Your task to perform on an android device: turn on data saver in the chrome app Image 0: 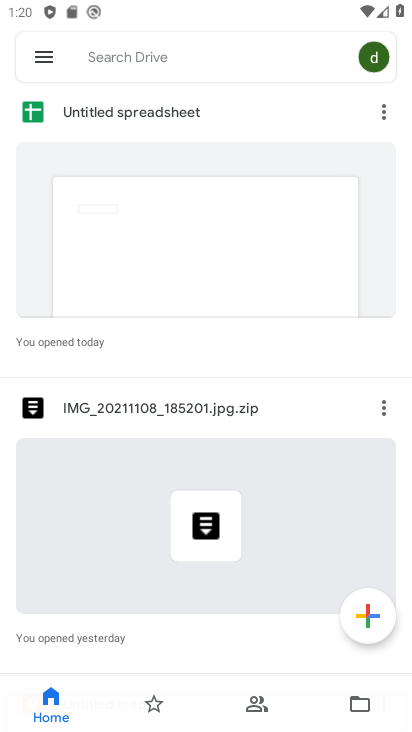
Step 0: press home button
Your task to perform on an android device: turn on data saver in the chrome app Image 1: 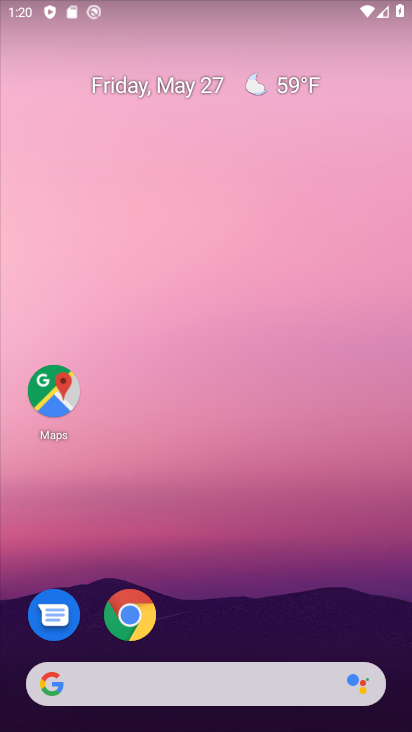
Step 1: click (140, 619)
Your task to perform on an android device: turn on data saver in the chrome app Image 2: 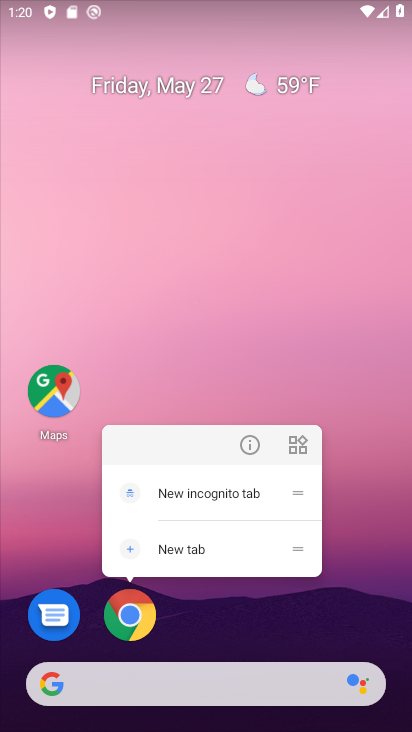
Step 2: click (126, 629)
Your task to perform on an android device: turn on data saver in the chrome app Image 3: 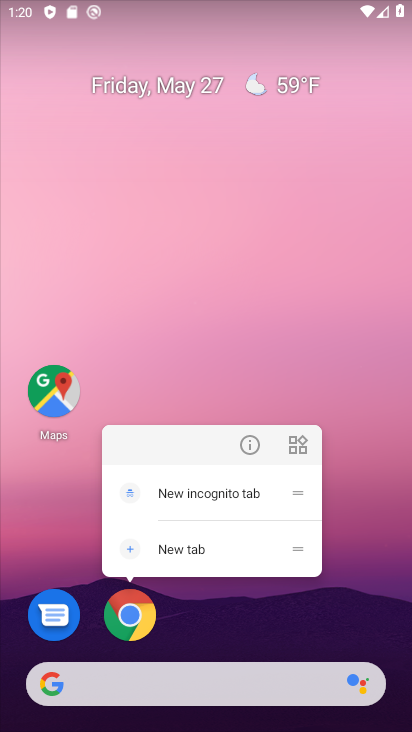
Step 3: click (128, 616)
Your task to perform on an android device: turn on data saver in the chrome app Image 4: 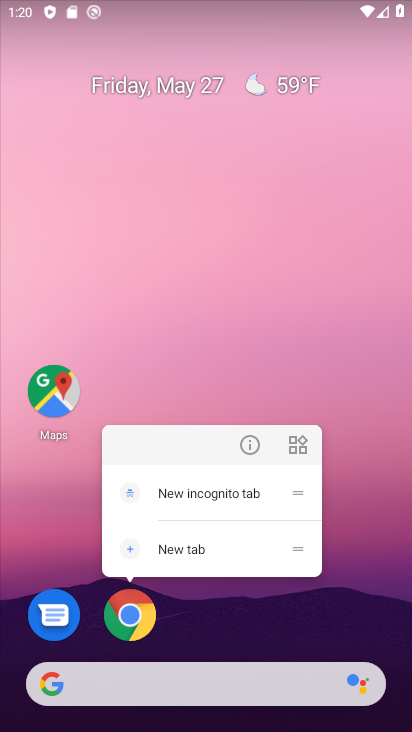
Step 4: click (130, 625)
Your task to perform on an android device: turn on data saver in the chrome app Image 5: 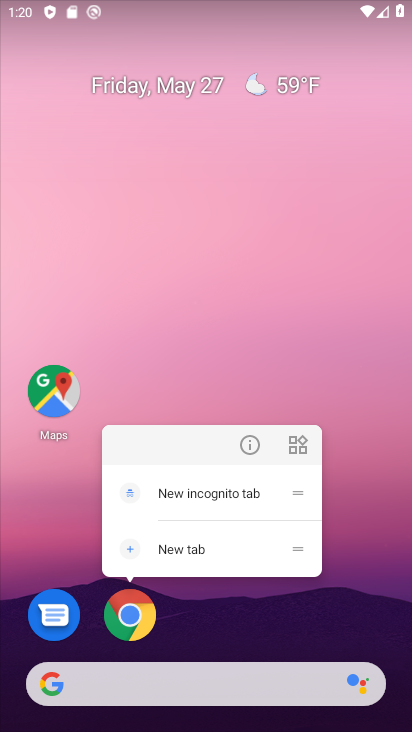
Step 5: click (130, 624)
Your task to perform on an android device: turn on data saver in the chrome app Image 6: 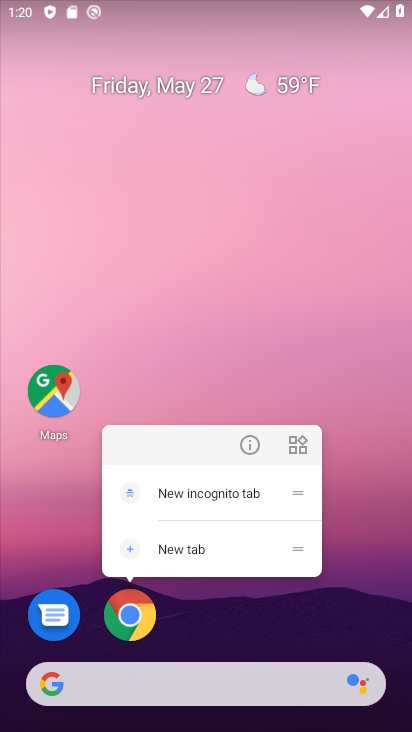
Step 6: click (131, 637)
Your task to perform on an android device: turn on data saver in the chrome app Image 7: 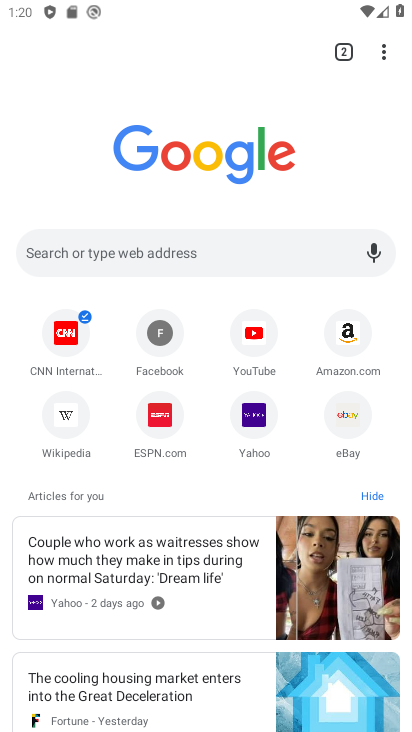
Step 7: click (386, 54)
Your task to perform on an android device: turn on data saver in the chrome app Image 8: 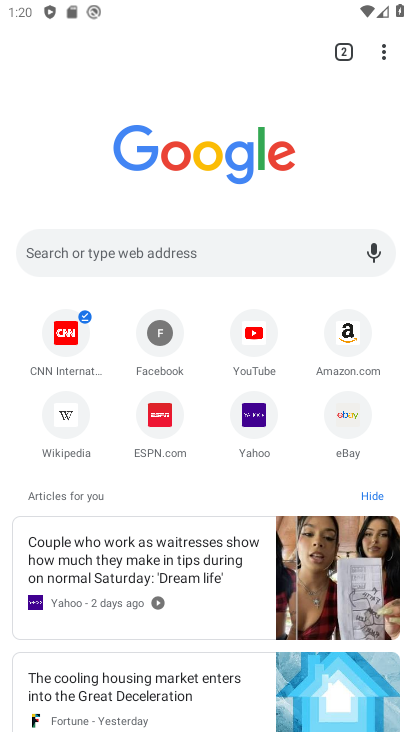
Step 8: drag from (384, 51) to (199, 487)
Your task to perform on an android device: turn on data saver in the chrome app Image 9: 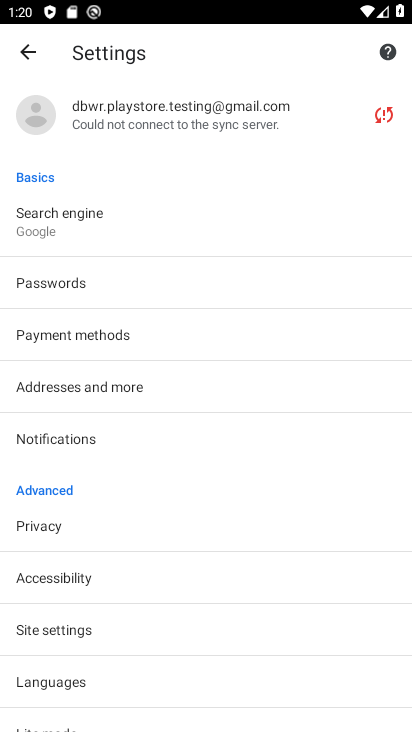
Step 9: drag from (192, 674) to (93, 150)
Your task to perform on an android device: turn on data saver in the chrome app Image 10: 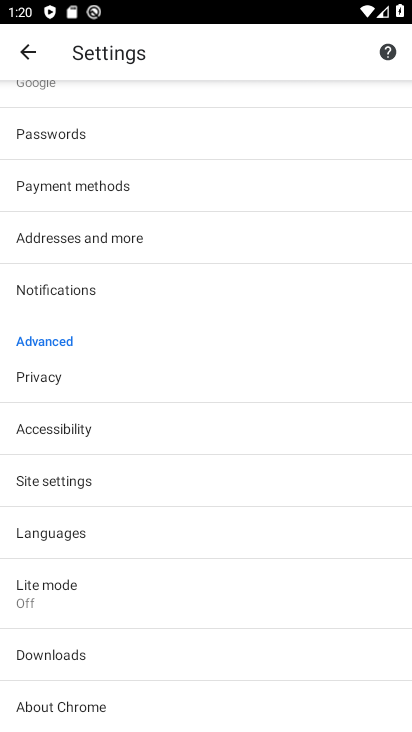
Step 10: click (67, 601)
Your task to perform on an android device: turn on data saver in the chrome app Image 11: 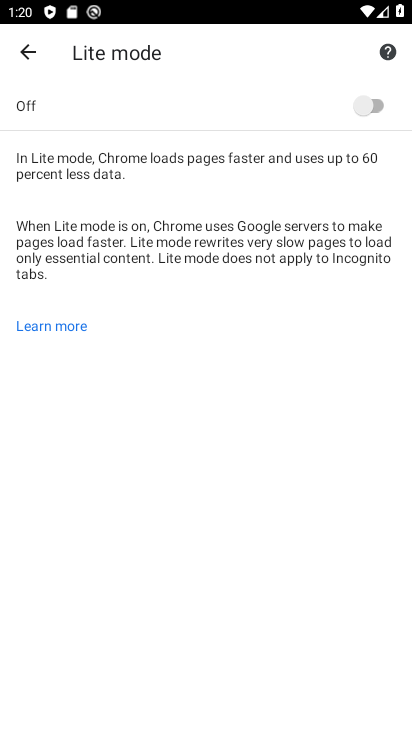
Step 11: click (364, 102)
Your task to perform on an android device: turn on data saver in the chrome app Image 12: 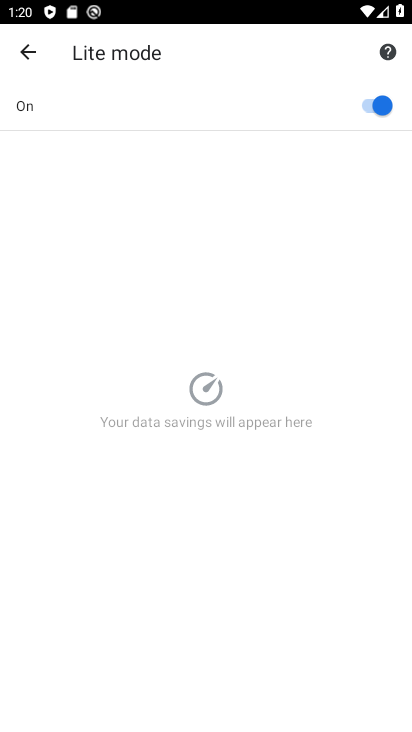
Step 12: task complete